Your task to perform on an android device: turn off location Image 0: 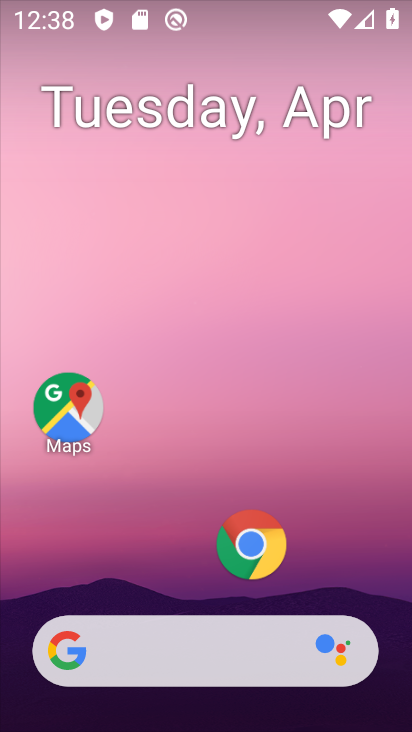
Step 0: drag from (139, 533) to (188, 139)
Your task to perform on an android device: turn off location Image 1: 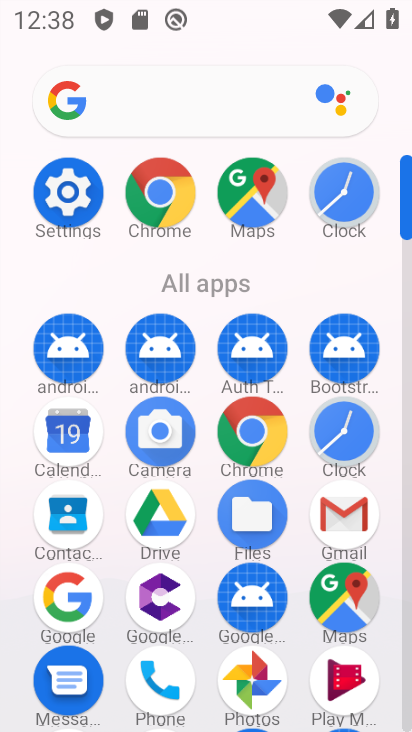
Step 1: click (53, 192)
Your task to perform on an android device: turn off location Image 2: 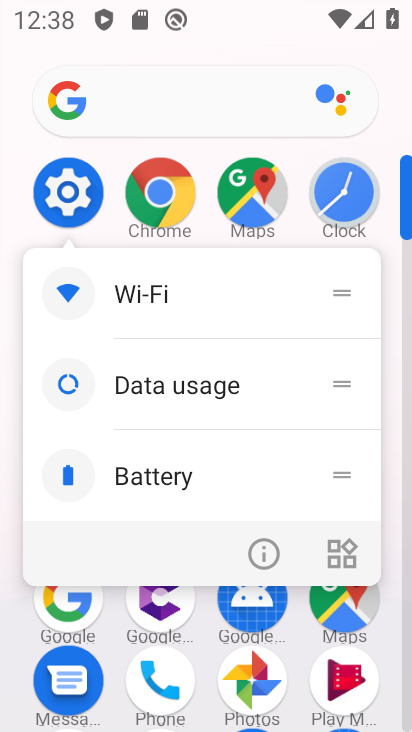
Step 2: click (53, 192)
Your task to perform on an android device: turn off location Image 3: 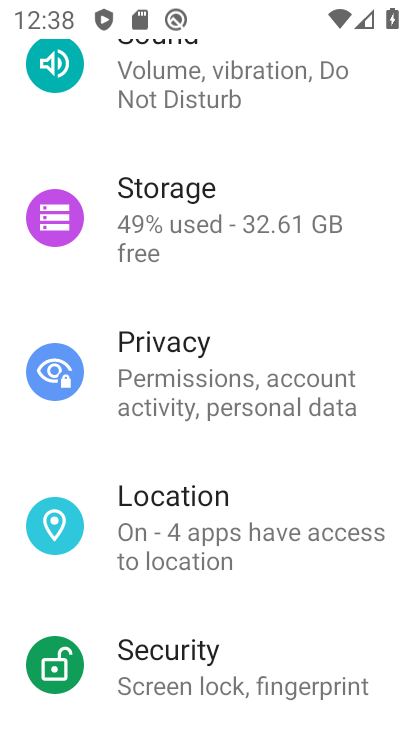
Step 3: click (304, 522)
Your task to perform on an android device: turn off location Image 4: 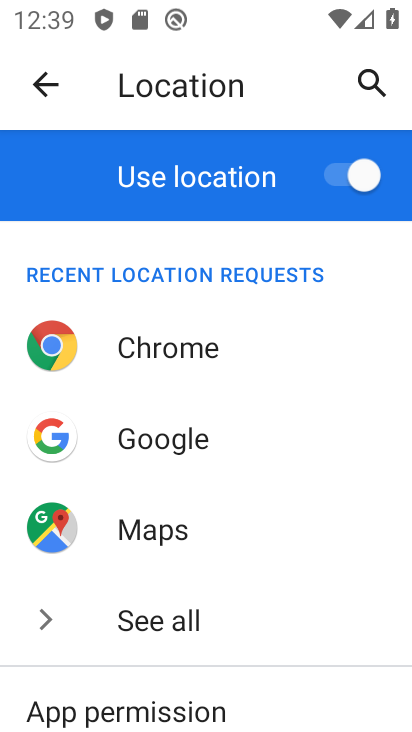
Step 4: click (344, 172)
Your task to perform on an android device: turn off location Image 5: 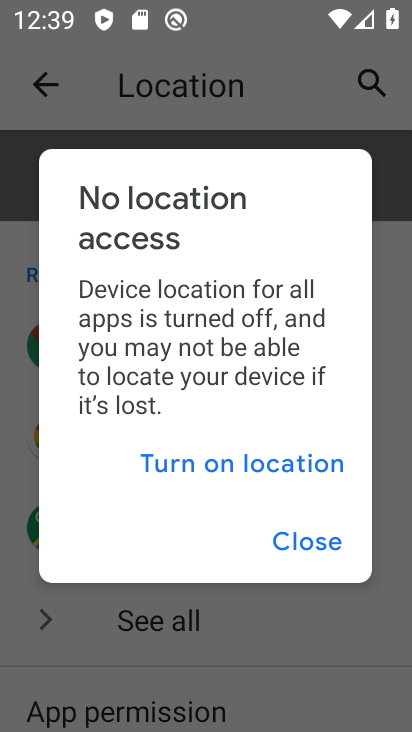
Step 5: click (303, 537)
Your task to perform on an android device: turn off location Image 6: 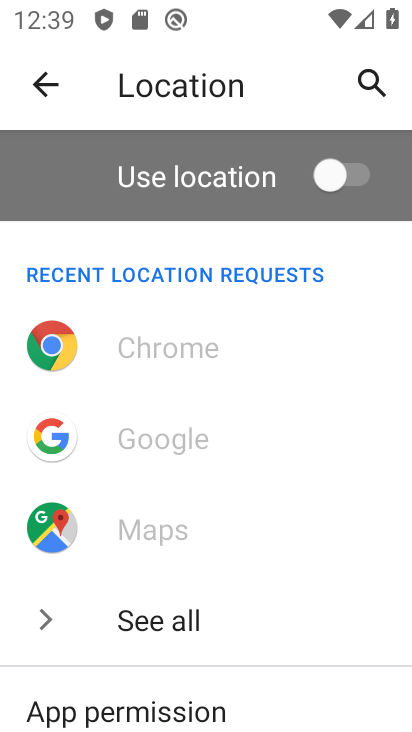
Step 6: task complete